Your task to perform on an android device: move a message to another label in the gmail app Image 0: 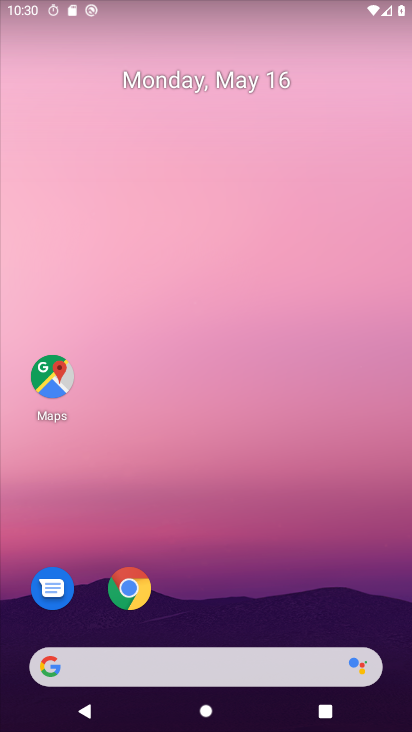
Step 0: drag from (203, 627) to (200, 53)
Your task to perform on an android device: move a message to another label in the gmail app Image 1: 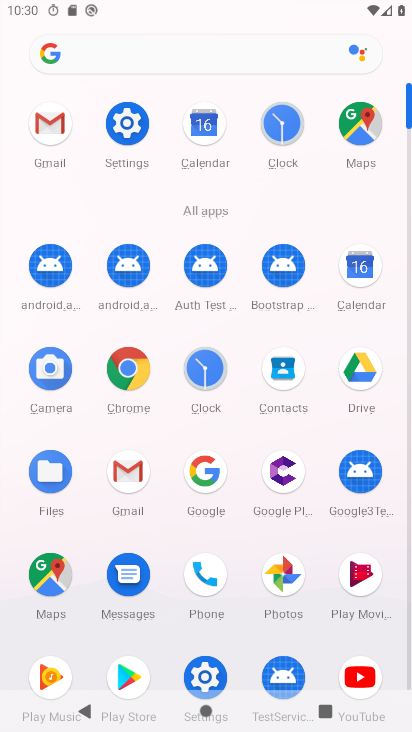
Step 1: click (42, 116)
Your task to perform on an android device: move a message to another label in the gmail app Image 2: 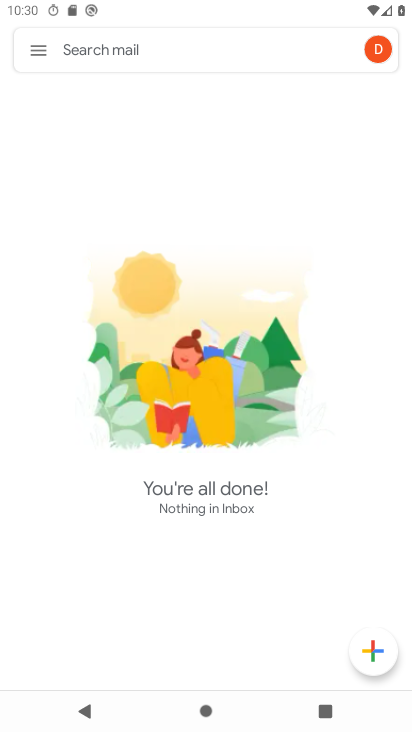
Step 2: click (37, 48)
Your task to perform on an android device: move a message to another label in the gmail app Image 3: 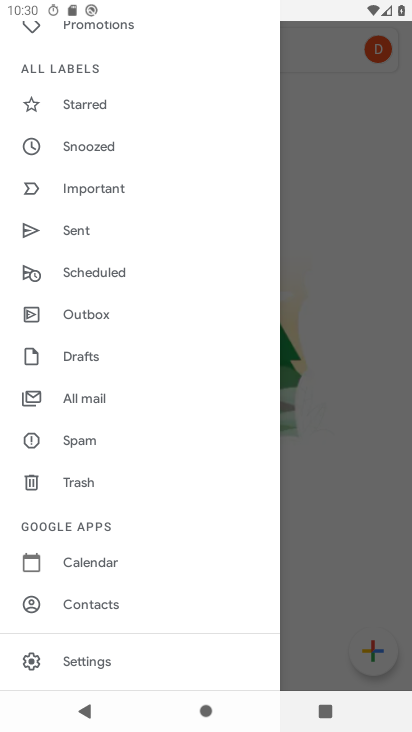
Step 3: click (110, 394)
Your task to perform on an android device: move a message to another label in the gmail app Image 4: 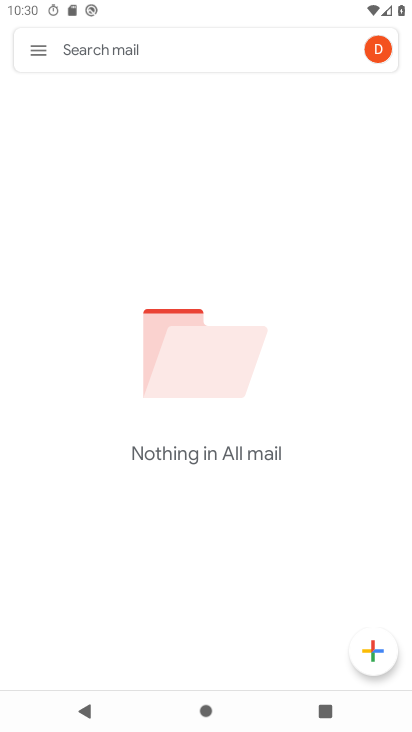
Step 4: task complete